Your task to perform on an android device: see creations saved in the google photos Image 0: 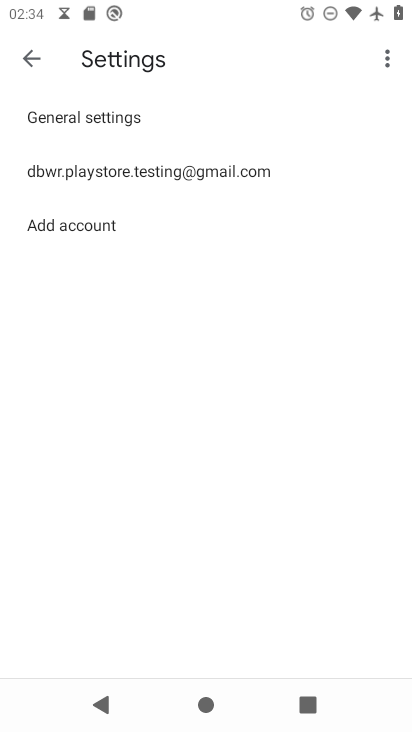
Step 0: press home button
Your task to perform on an android device: see creations saved in the google photos Image 1: 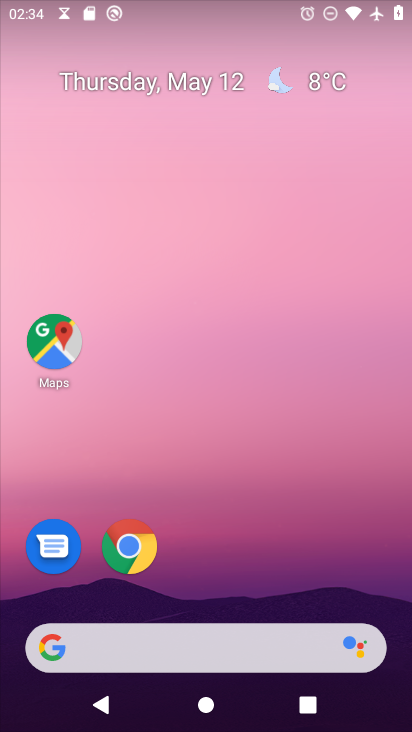
Step 1: drag from (143, 642) to (217, 121)
Your task to perform on an android device: see creations saved in the google photos Image 2: 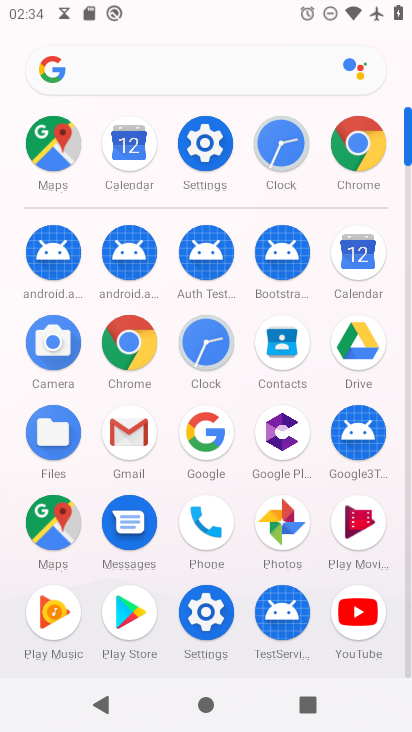
Step 2: click (291, 540)
Your task to perform on an android device: see creations saved in the google photos Image 3: 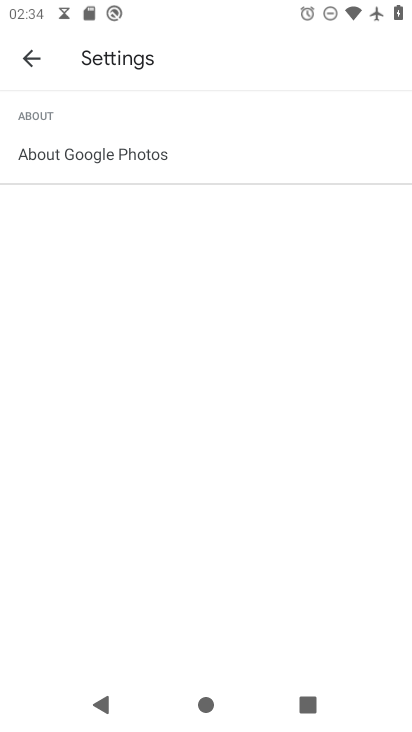
Step 3: click (29, 59)
Your task to perform on an android device: see creations saved in the google photos Image 4: 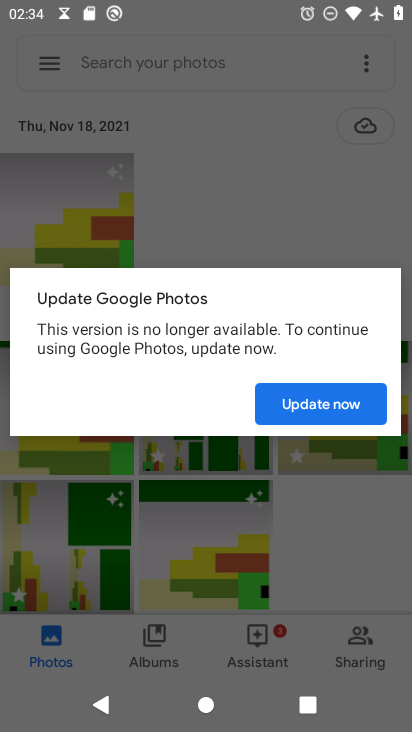
Step 4: click (331, 402)
Your task to perform on an android device: see creations saved in the google photos Image 5: 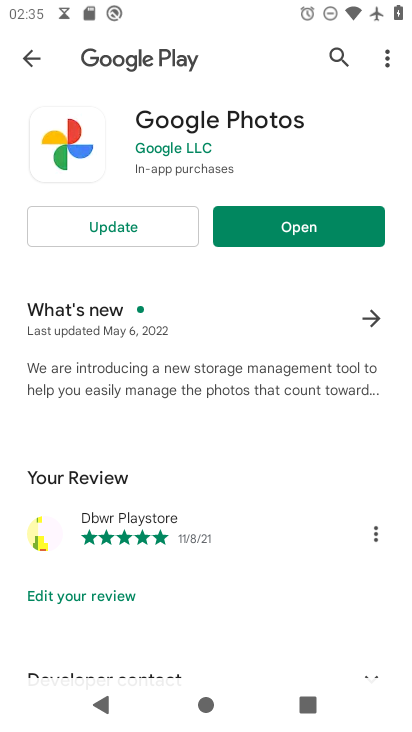
Step 5: click (293, 235)
Your task to perform on an android device: see creations saved in the google photos Image 6: 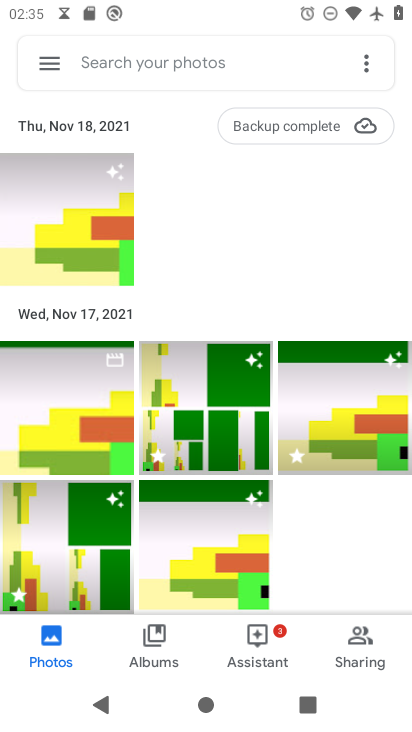
Step 6: click (47, 67)
Your task to perform on an android device: see creations saved in the google photos Image 7: 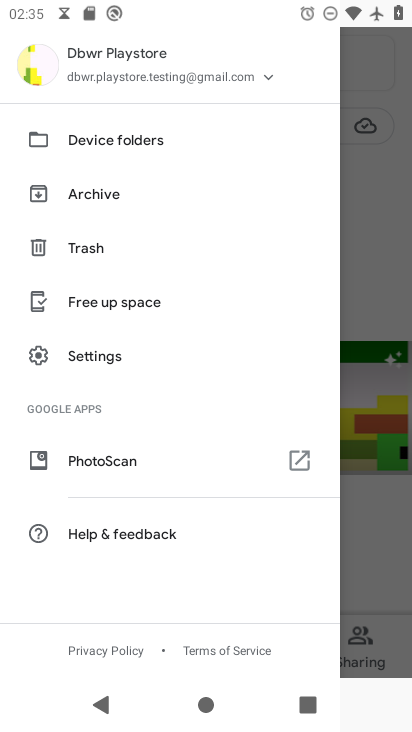
Step 7: click (370, 246)
Your task to perform on an android device: see creations saved in the google photos Image 8: 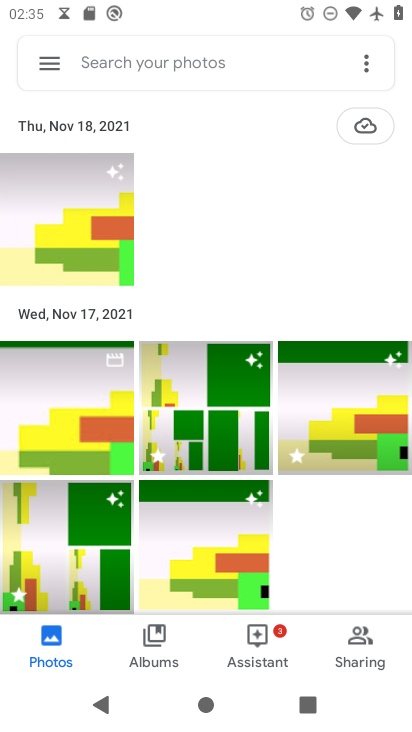
Step 8: click (154, 654)
Your task to perform on an android device: see creations saved in the google photos Image 9: 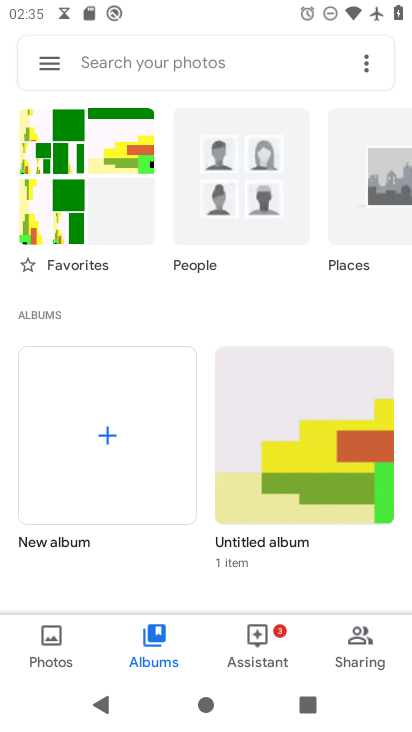
Step 9: click (187, 60)
Your task to perform on an android device: see creations saved in the google photos Image 10: 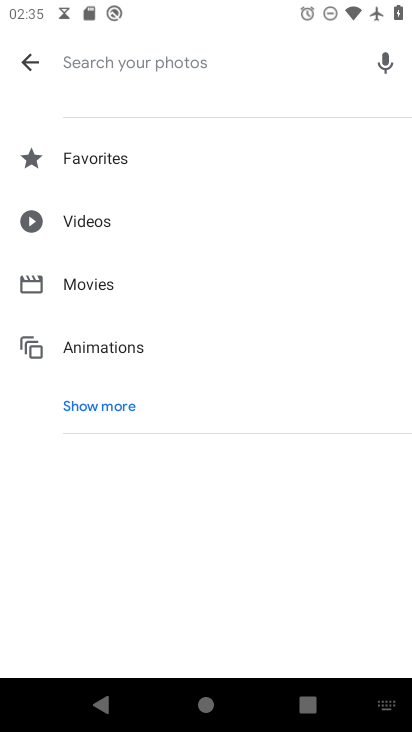
Step 10: click (90, 411)
Your task to perform on an android device: see creations saved in the google photos Image 11: 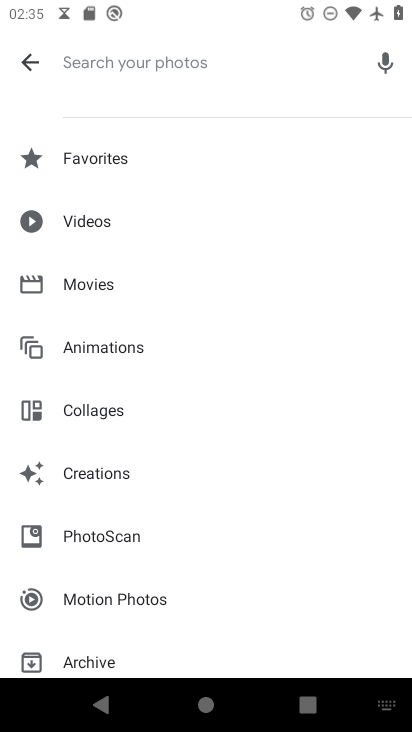
Step 11: click (102, 474)
Your task to perform on an android device: see creations saved in the google photos Image 12: 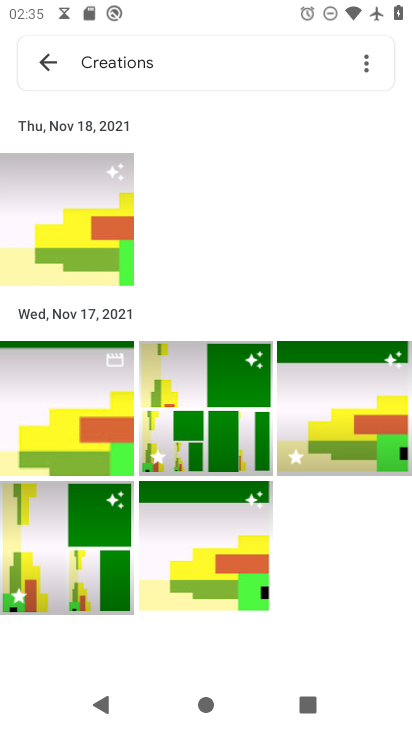
Step 12: task complete